Your task to perform on an android device: change the upload size in google photos Image 0: 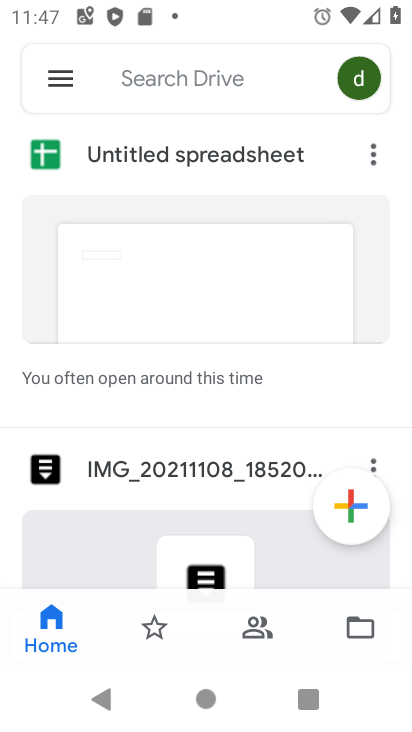
Step 0: press home button
Your task to perform on an android device: change the upload size in google photos Image 1: 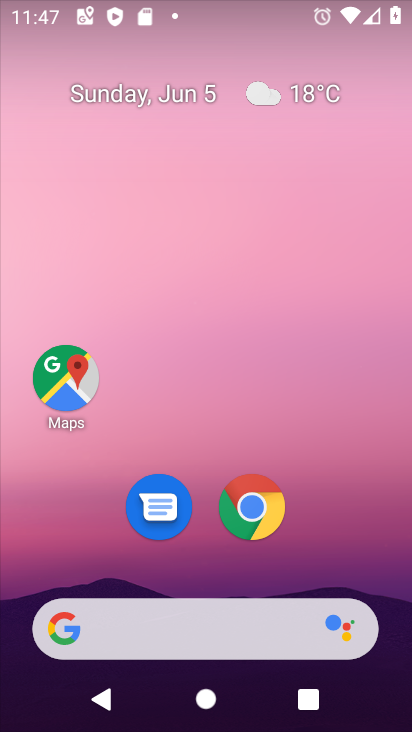
Step 1: drag from (239, 724) to (186, 23)
Your task to perform on an android device: change the upload size in google photos Image 2: 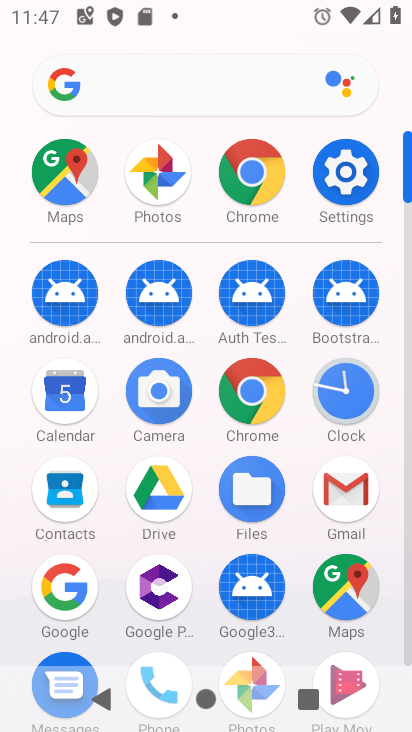
Step 2: click (248, 674)
Your task to perform on an android device: change the upload size in google photos Image 3: 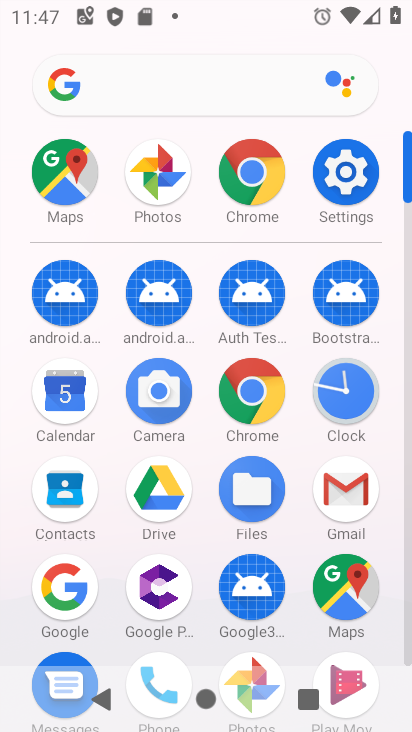
Step 3: drag from (301, 655) to (266, 268)
Your task to perform on an android device: change the upload size in google photos Image 4: 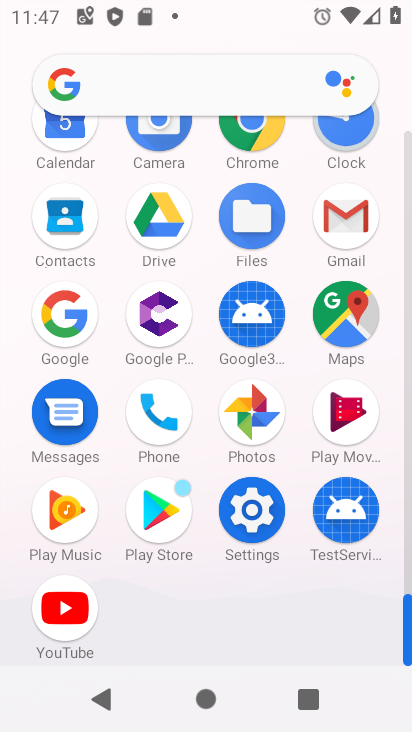
Step 4: click (257, 404)
Your task to perform on an android device: change the upload size in google photos Image 5: 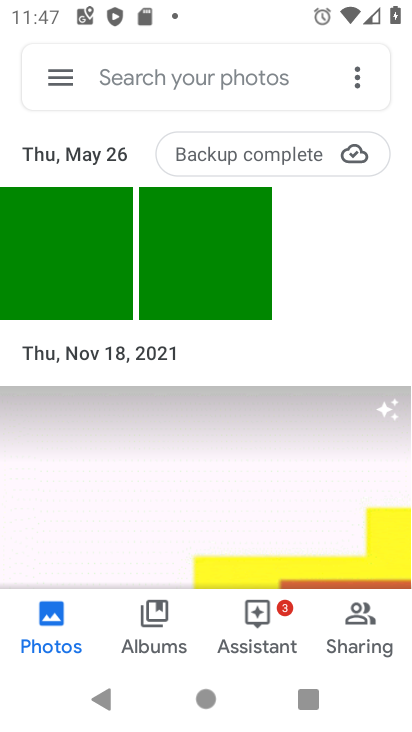
Step 5: click (63, 75)
Your task to perform on an android device: change the upload size in google photos Image 6: 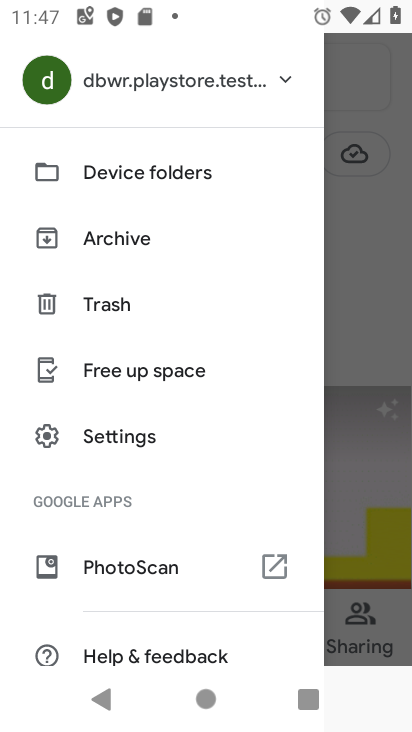
Step 6: click (137, 432)
Your task to perform on an android device: change the upload size in google photos Image 7: 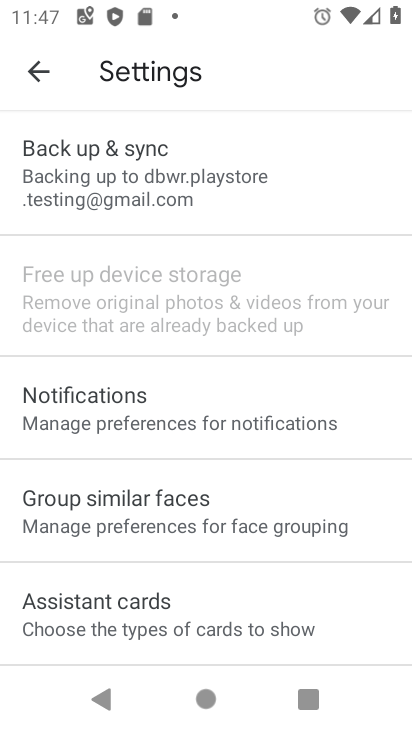
Step 7: click (88, 179)
Your task to perform on an android device: change the upload size in google photos Image 8: 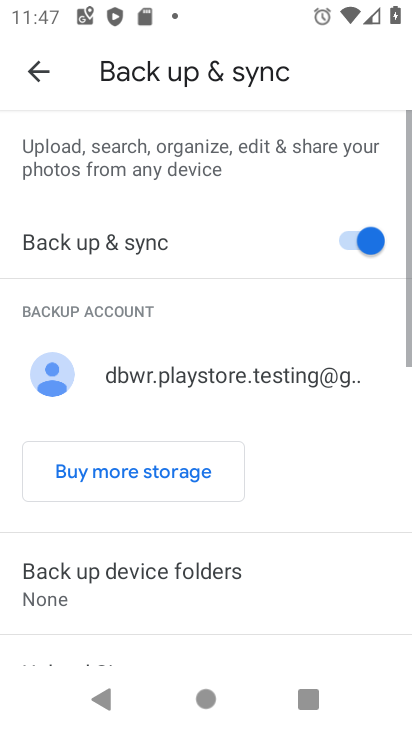
Step 8: drag from (132, 620) to (115, 203)
Your task to perform on an android device: change the upload size in google photos Image 9: 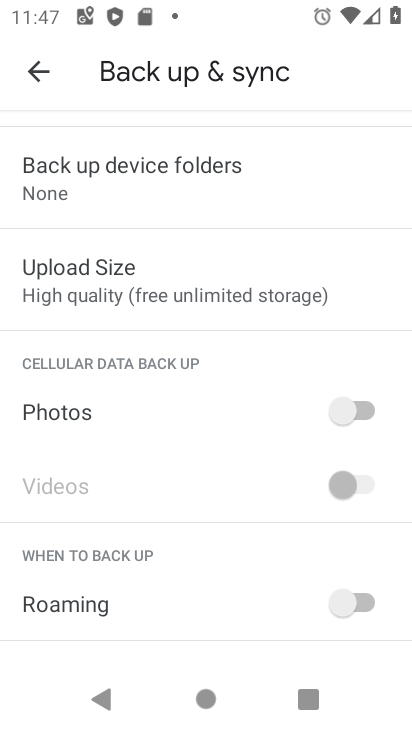
Step 9: click (97, 281)
Your task to perform on an android device: change the upload size in google photos Image 10: 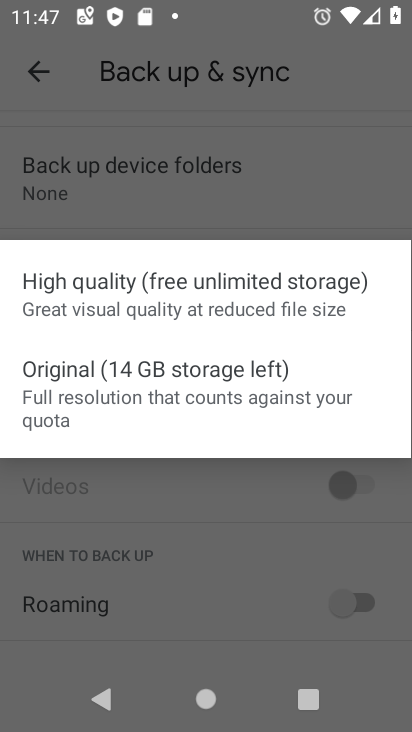
Step 10: click (80, 388)
Your task to perform on an android device: change the upload size in google photos Image 11: 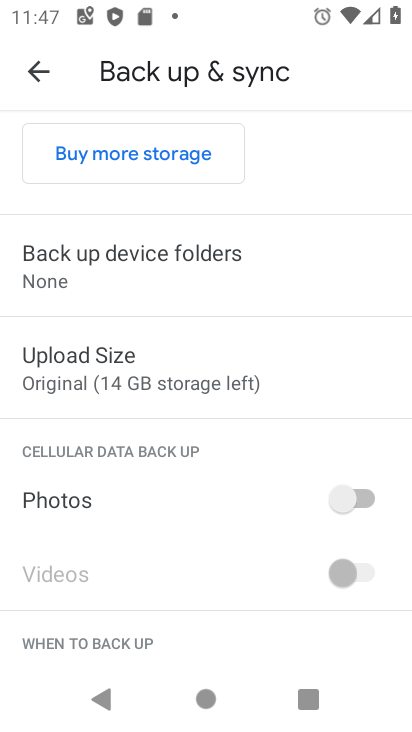
Step 11: task complete